Your task to perform on an android device: move a message to another label in the gmail app Image 0: 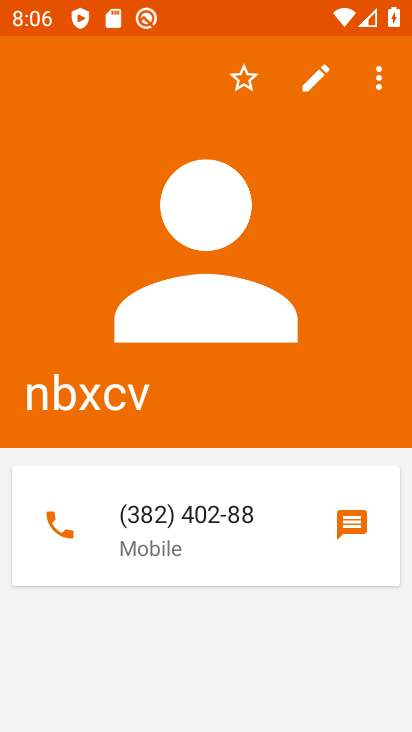
Step 0: press home button
Your task to perform on an android device: move a message to another label in the gmail app Image 1: 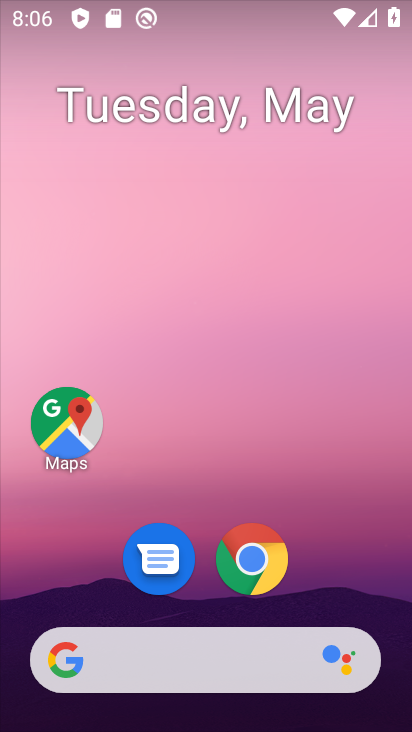
Step 1: drag from (179, 624) to (176, 128)
Your task to perform on an android device: move a message to another label in the gmail app Image 2: 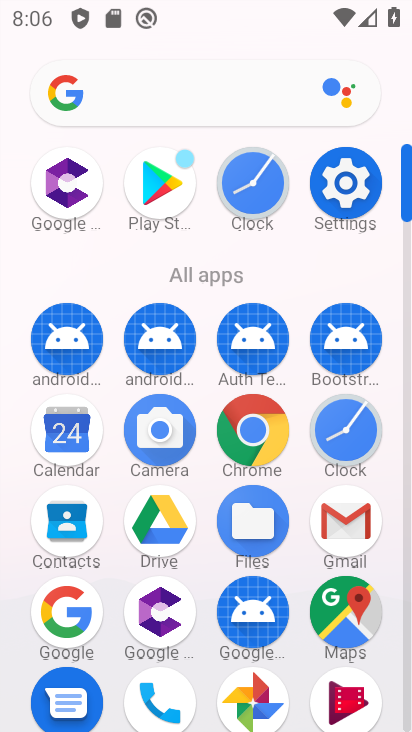
Step 2: click (351, 536)
Your task to perform on an android device: move a message to another label in the gmail app Image 3: 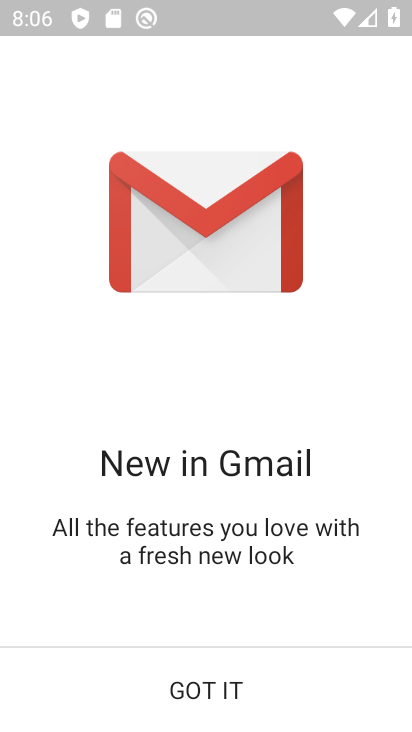
Step 3: click (195, 707)
Your task to perform on an android device: move a message to another label in the gmail app Image 4: 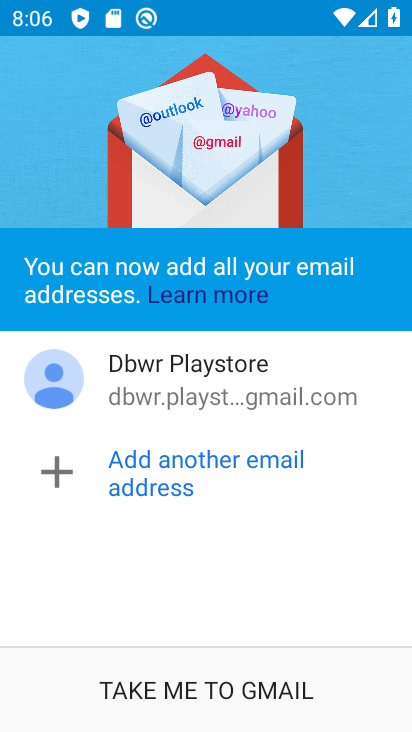
Step 4: click (201, 698)
Your task to perform on an android device: move a message to another label in the gmail app Image 5: 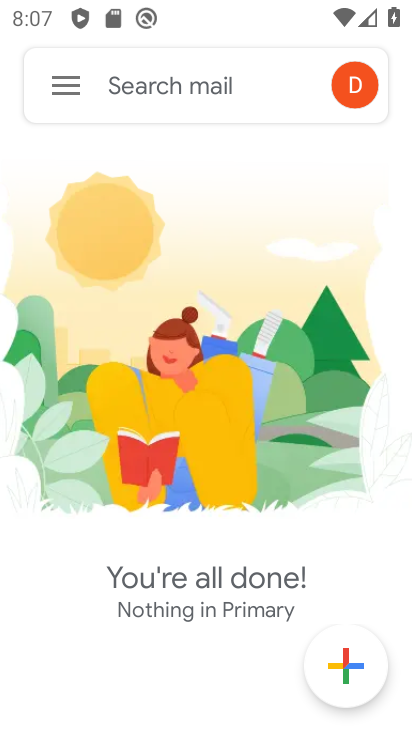
Step 5: click (64, 86)
Your task to perform on an android device: move a message to another label in the gmail app Image 6: 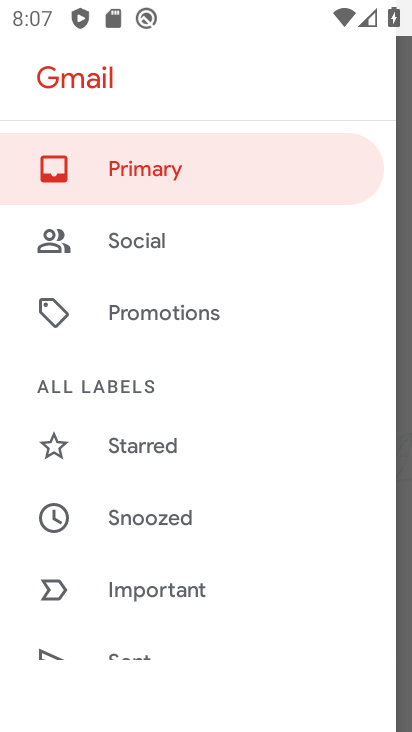
Step 6: drag from (187, 633) to (151, 120)
Your task to perform on an android device: move a message to another label in the gmail app Image 7: 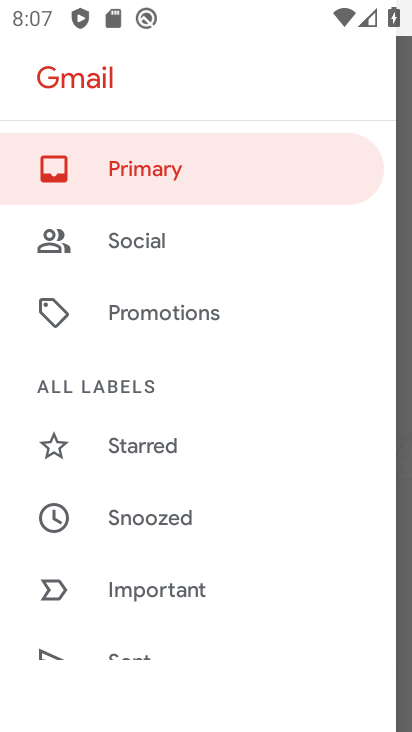
Step 7: drag from (154, 601) to (167, 218)
Your task to perform on an android device: move a message to another label in the gmail app Image 8: 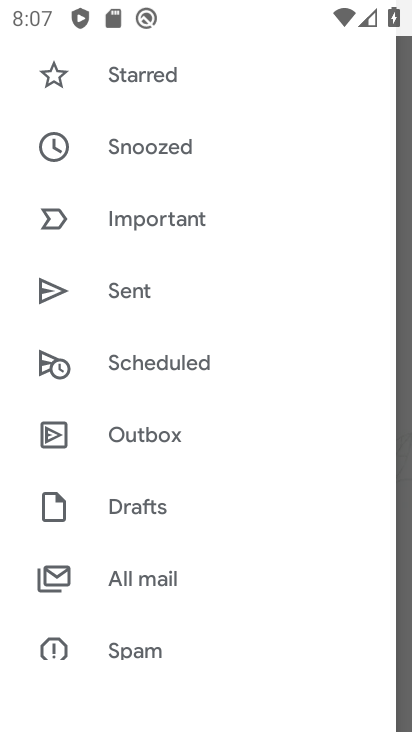
Step 8: click (145, 585)
Your task to perform on an android device: move a message to another label in the gmail app Image 9: 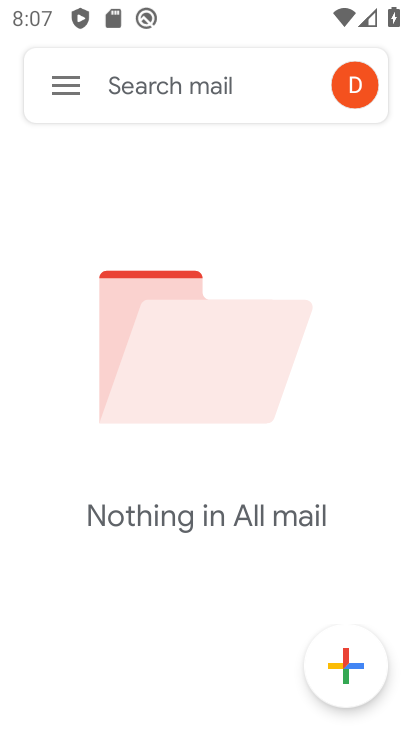
Step 9: task complete